Your task to perform on an android device: check android version Image 0: 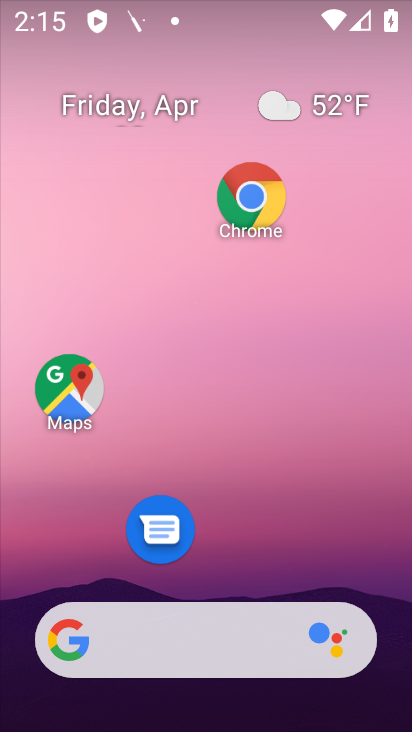
Step 0: drag from (217, 572) to (175, 109)
Your task to perform on an android device: check android version Image 1: 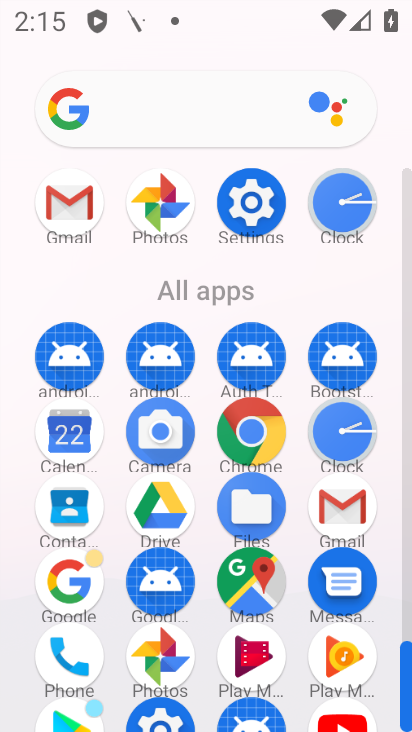
Step 1: click (250, 221)
Your task to perform on an android device: check android version Image 2: 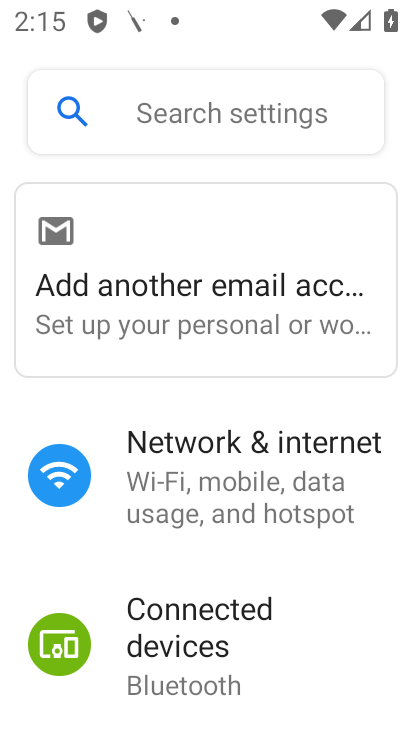
Step 2: drag from (295, 524) to (302, 191)
Your task to perform on an android device: check android version Image 3: 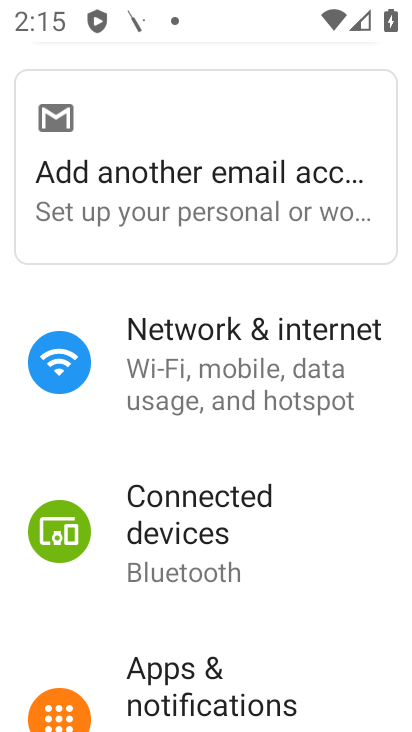
Step 3: drag from (306, 534) to (352, 240)
Your task to perform on an android device: check android version Image 4: 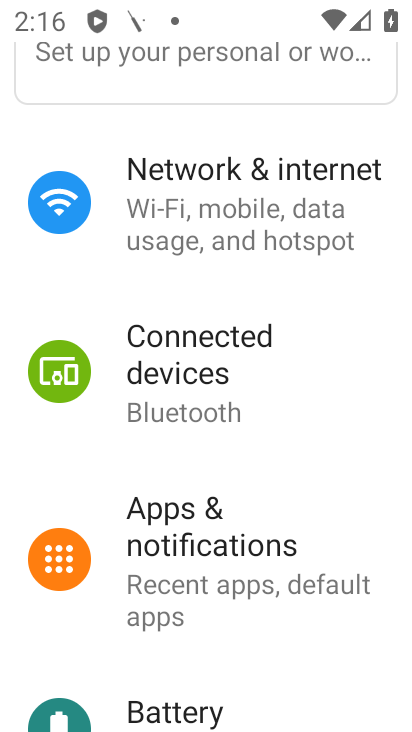
Step 4: drag from (267, 646) to (273, 162)
Your task to perform on an android device: check android version Image 5: 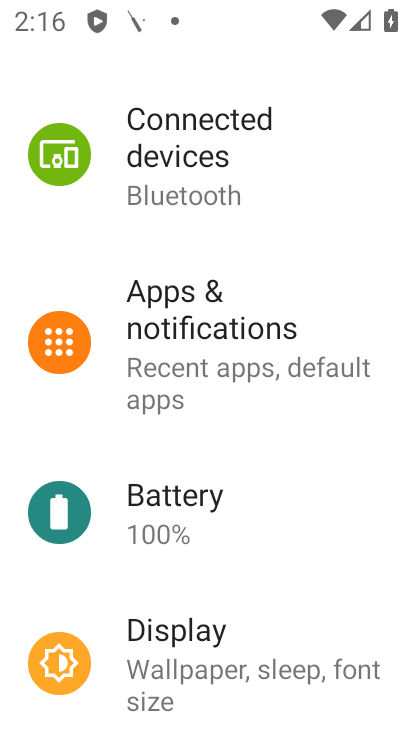
Step 5: drag from (264, 563) to (306, 152)
Your task to perform on an android device: check android version Image 6: 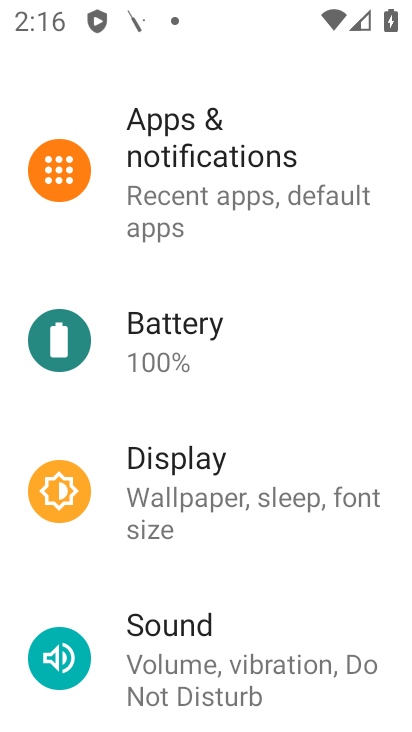
Step 6: drag from (294, 562) to (320, 258)
Your task to perform on an android device: check android version Image 7: 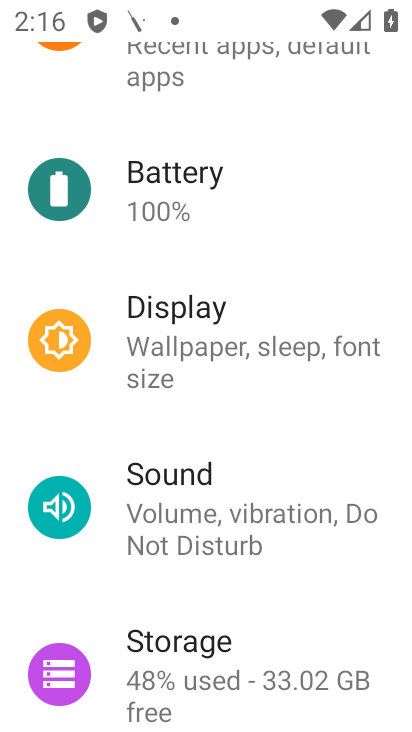
Step 7: drag from (260, 610) to (288, 300)
Your task to perform on an android device: check android version Image 8: 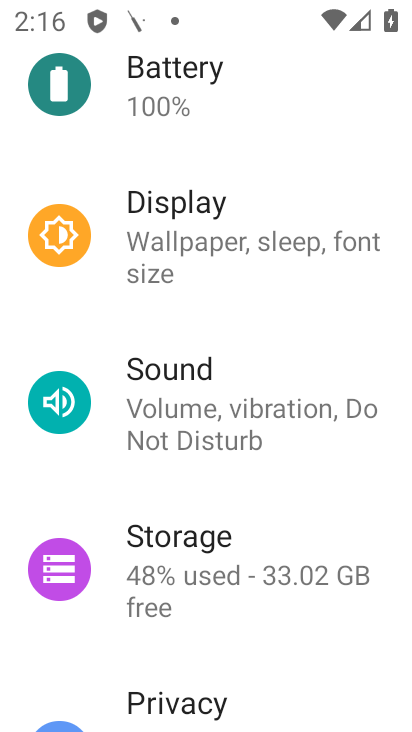
Step 8: drag from (266, 571) to (300, 279)
Your task to perform on an android device: check android version Image 9: 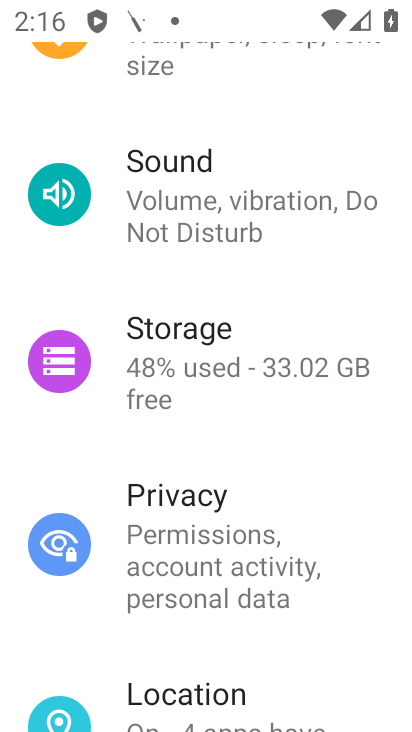
Step 9: drag from (299, 592) to (301, 298)
Your task to perform on an android device: check android version Image 10: 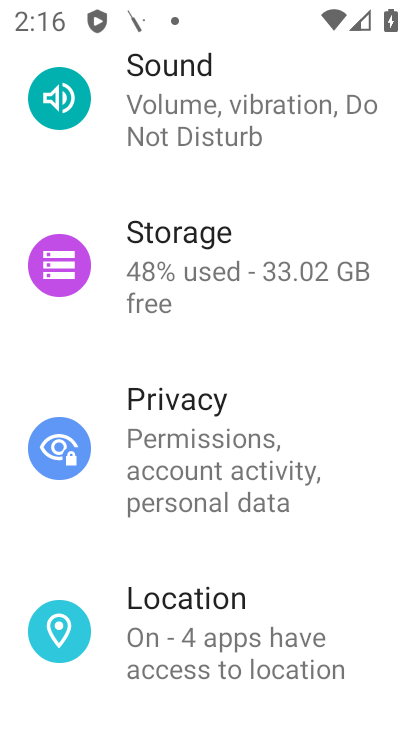
Step 10: drag from (281, 564) to (284, 388)
Your task to perform on an android device: check android version Image 11: 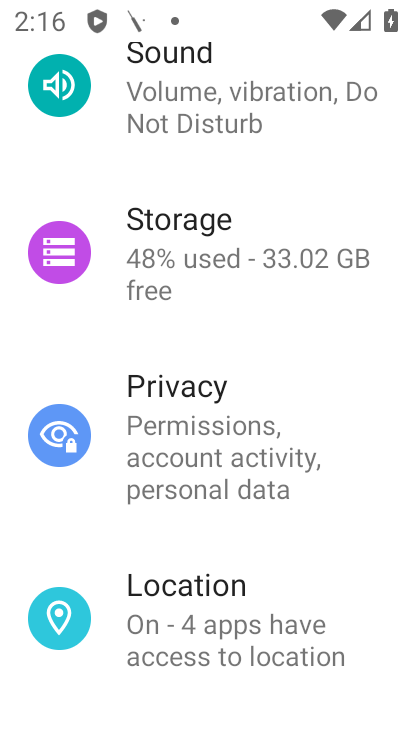
Step 11: drag from (274, 652) to (294, 294)
Your task to perform on an android device: check android version Image 12: 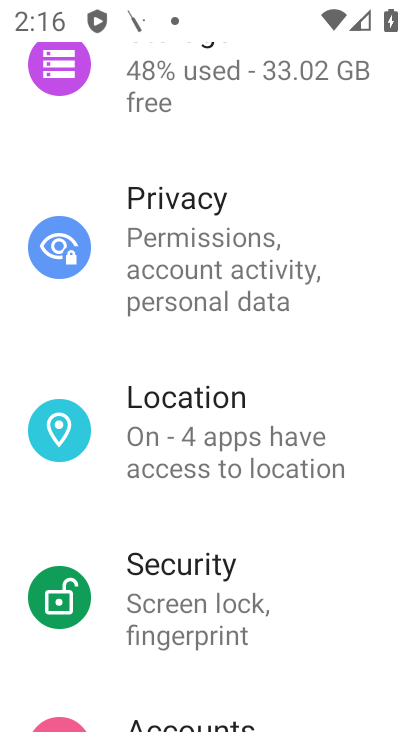
Step 12: drag from (263, 436) to (295, 249)
Your task to perform on an android device: check android version Image 13: 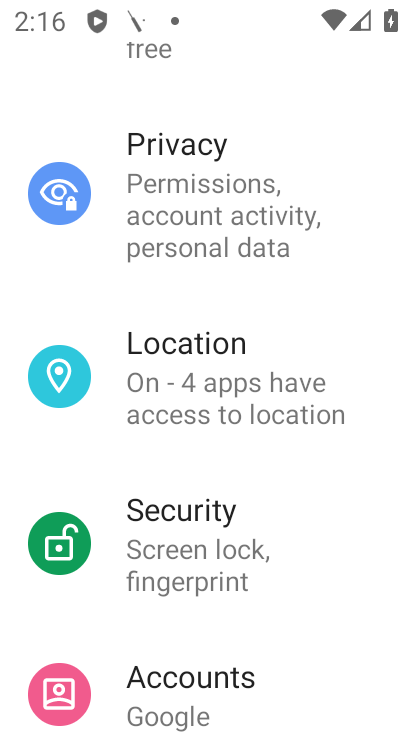
Step 13: drag from (322, 599) to (329, 160)
Your task to perform on an android device: check android version Image 14: 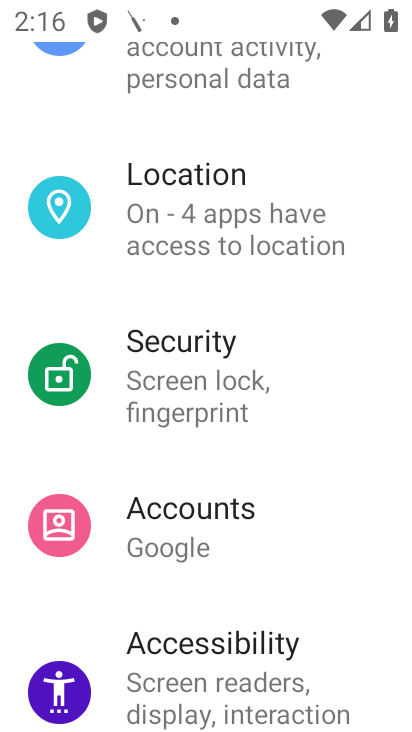
Step 14: drag from (286, 534) to (295, 227)
Your task to perform on an android device: check android version Image 15: 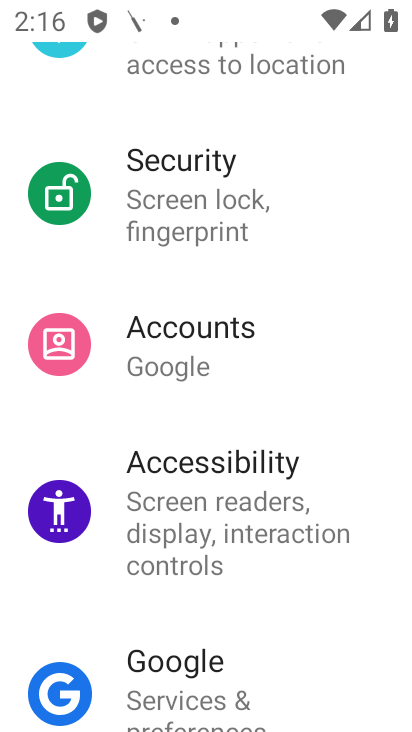
Step 15: drag from (269, 467) to (275, 283)
Your task to perform on an android device: check android version Image 16: 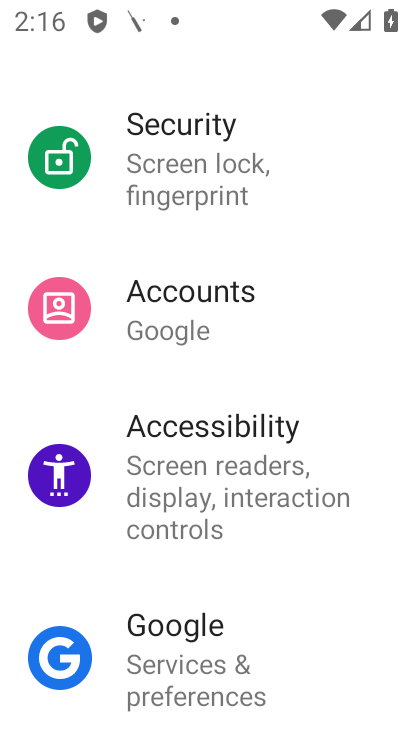
Step 16: drag from (287, 568) to (301, 254)
Your task to perform on an android device: check android version Image 17: 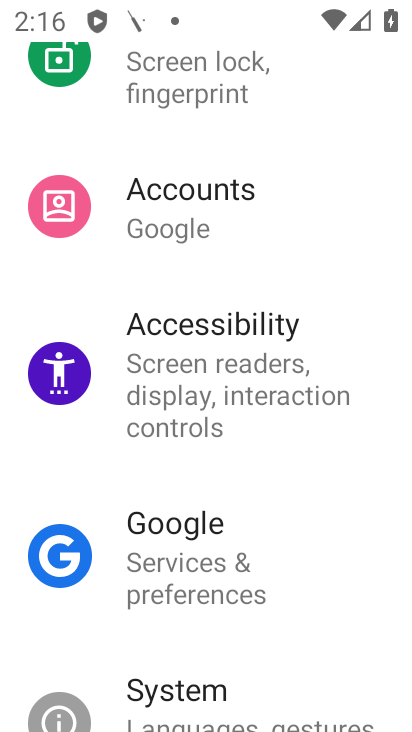
Step 17: drag from (270, 527) to (278, 245)
Your task to perform on an android device: check android version Image 18: 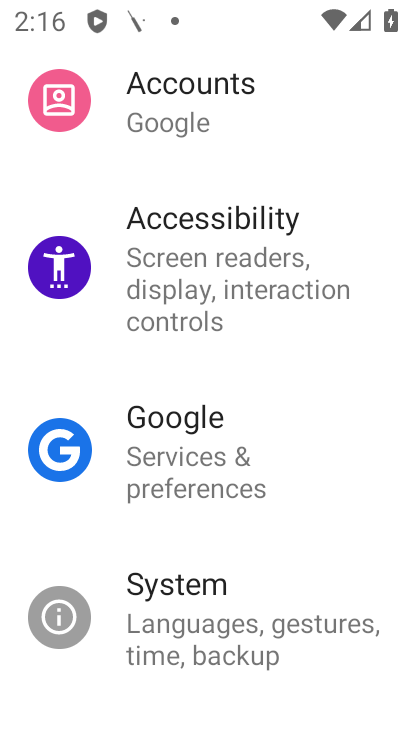
Step 18: drag from (288, 479) to (303, 312)
Your task to perform on an android device: check android version Image 19: 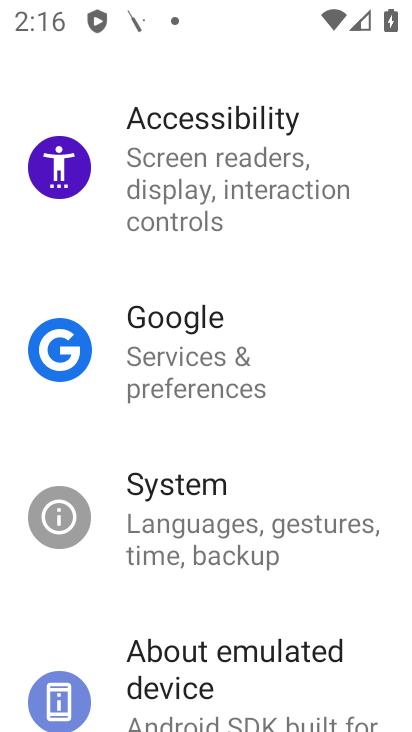
Step 19: drag from (291, 502) to (291, 352)
Your task to perform on an android device: check android version Image 20: 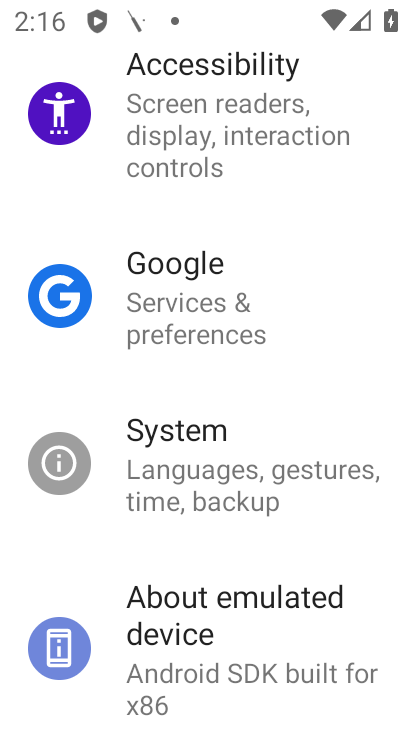
Step 20: drag from (283, 556) to (283, 393)
Your task to perform on an android device: check android version Image 21: 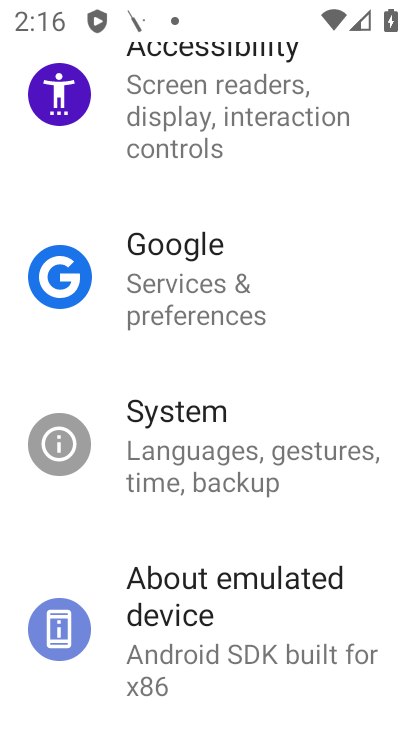
Step 21: drag from (259, 585) to (263, 397)
Your task to perform on an android device: check android version Image 22: 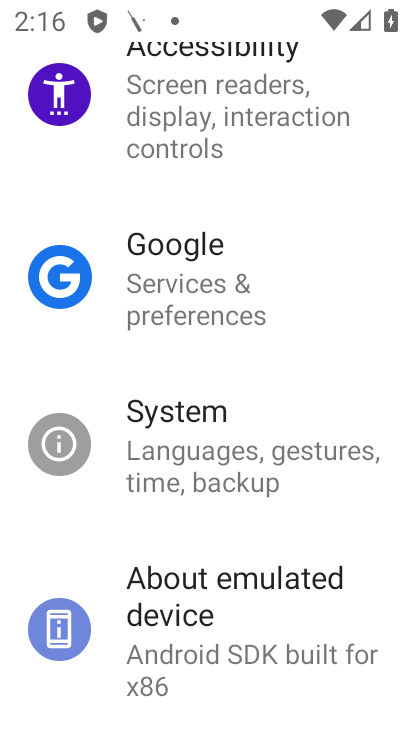
Step 22: click (267, 586)
Your task to perform on an android device: check android version Image 23: 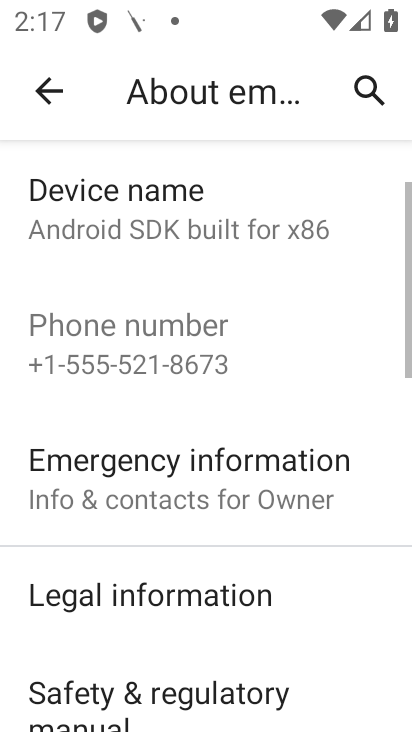
Step 23: drag from (268, 593) to (293, 198)
Your task to perform on an android device: check android version Image 24: 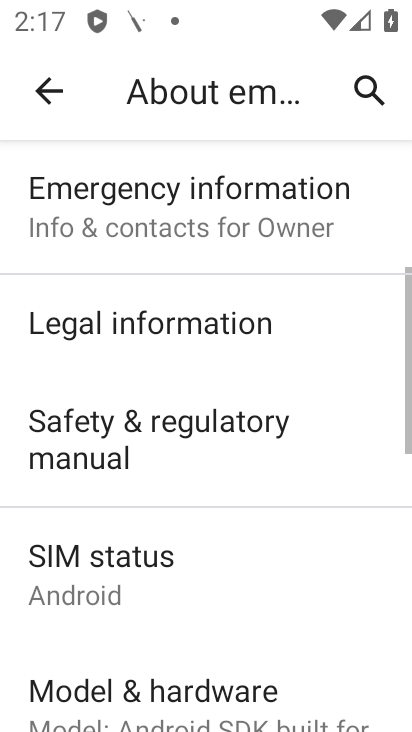
Step 24: drag from (241, 504) to (254, 315)
Your task to perform on an android device: check android version Image 25: 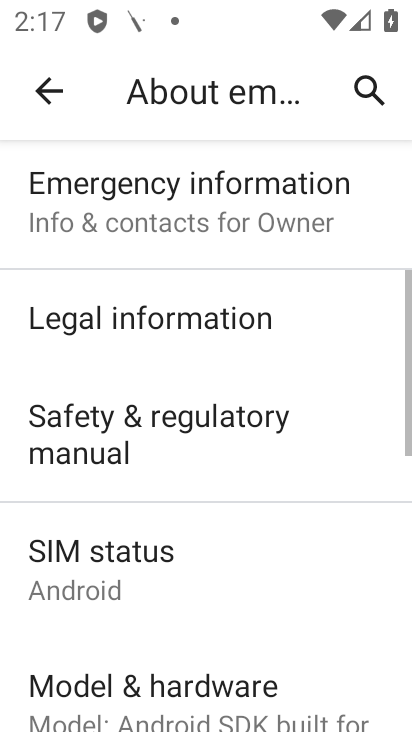
Step 25: drag from (259, 528) to (265, 318)
Your task to perform on an android device: check android version Image 26: 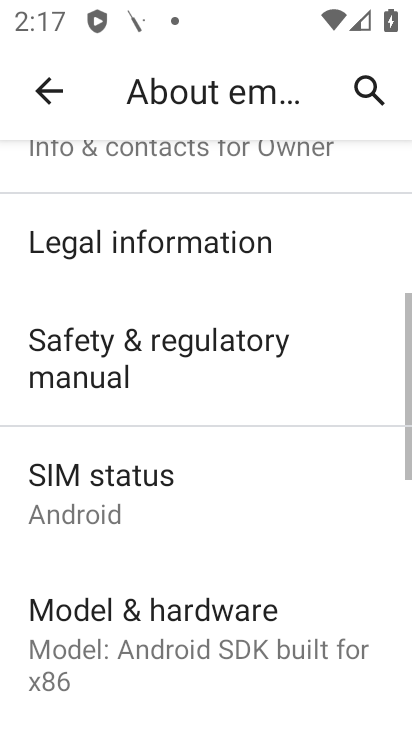
Step 26: drag from (275, 572) to (286, 347)
Your task to perform on an android device: check android version Image 27: 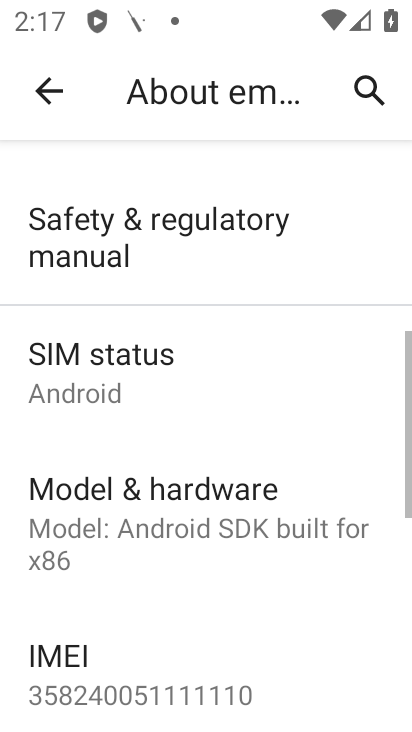
Step 27: drag from (281, 555) to (293, 346)
Your task to perform on an android device: check android version Image 28: 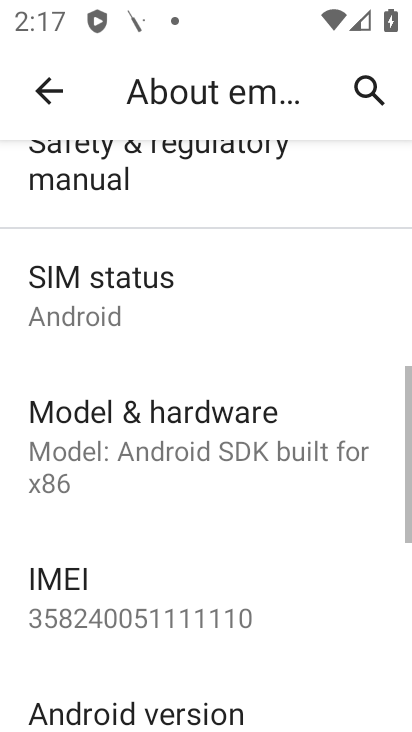
Step 28: drag from (300, 578) to (302, 387)
Your task to perform on an android device: check android version Image 29: 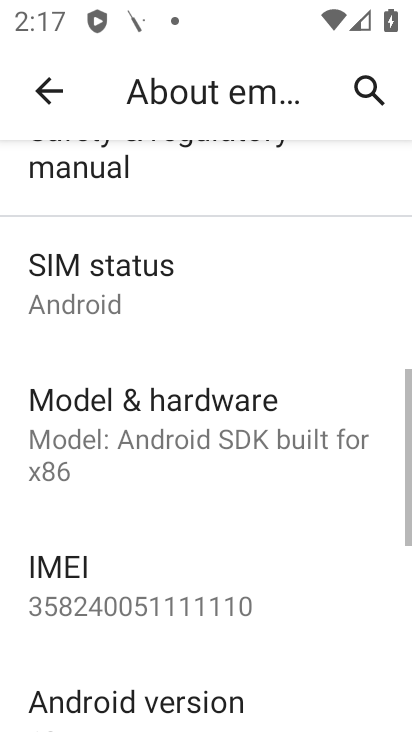
Step 29: drag from (303, 546) to (324, 351)
Your task to perform on an android device: check android version Image 30: 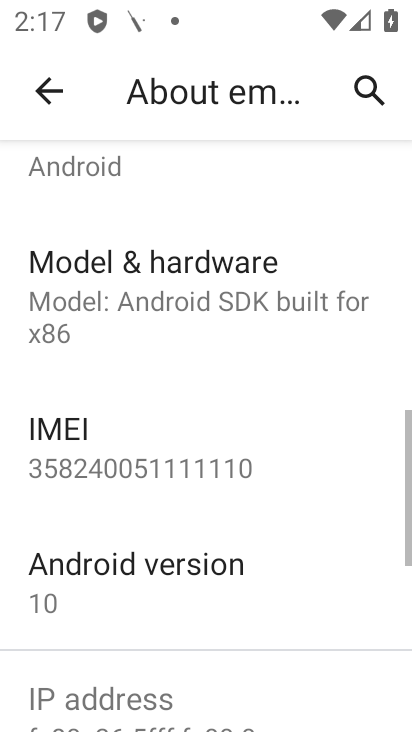
Step 30: click (256, 602)
Your task to perform on an android device: check android version Image 31: 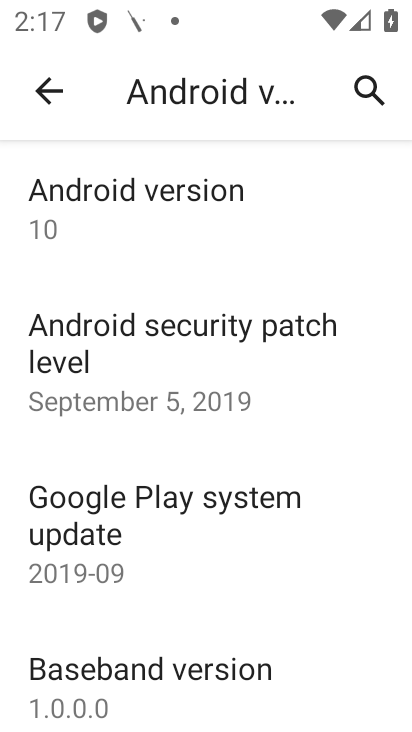
Step 31: task complete